Your task to perform on an android device: open app "eBay: The shopping marketplace" Image 0: 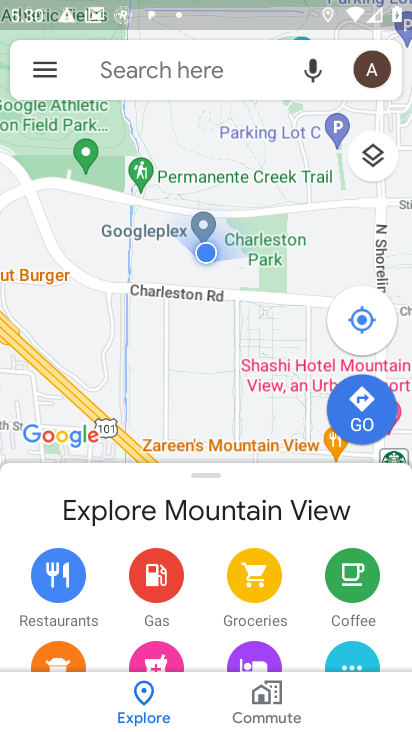
Step 0: press home button
Your task to perform on an android device: open app "eBay: The shopping marketplace" Image 1: 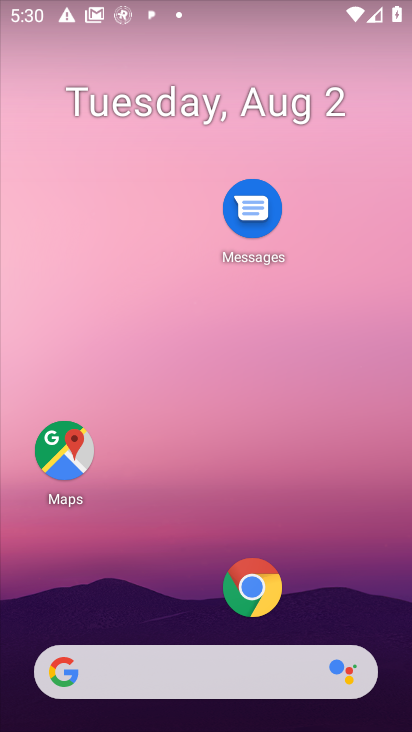
Step 1: drag from (156, 608) to (77, 218)
Your task to perform on an android device: open app "eBay: The shopping marketplace" Image 2: 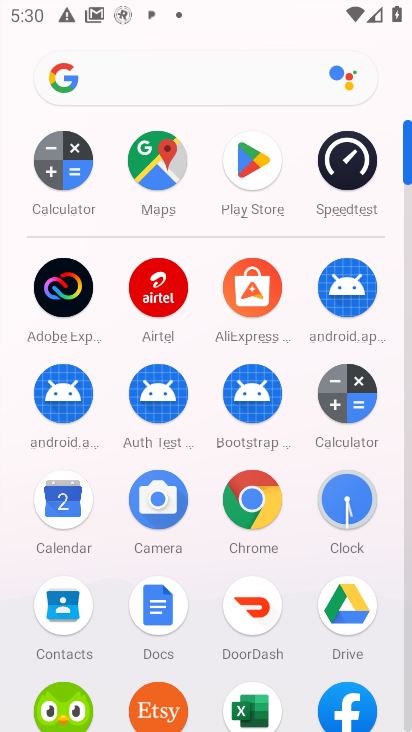
Step 2: click (265, 170)
Your task to perform on an android device: open app "eBay: The shopping marketplace" Image 3: 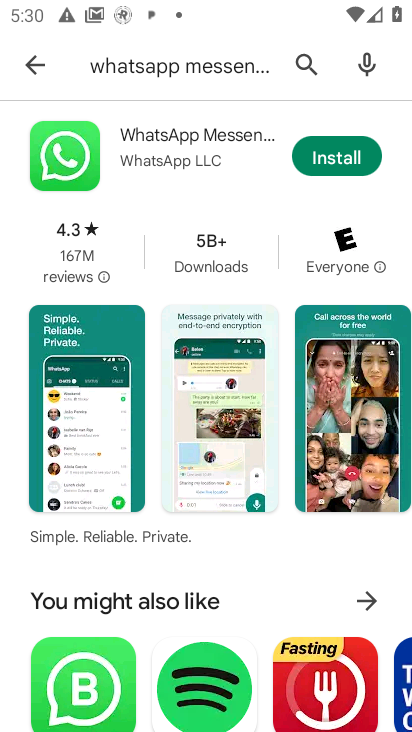
Step 3: click (309, 63)
Your task to perform on an android device: open app "eBay: The shopping marketplace" Image 4: 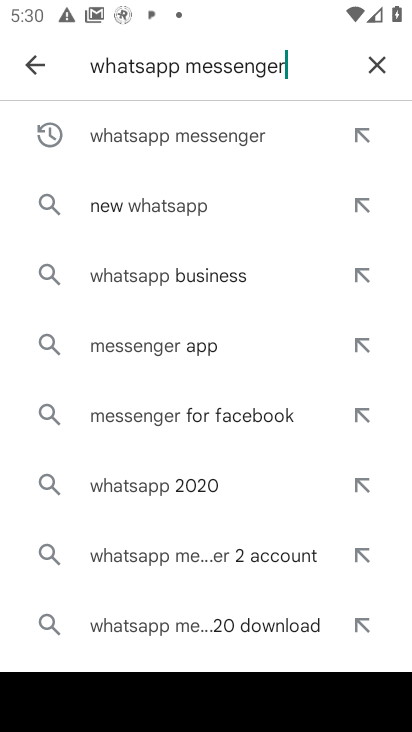
Step 4: click (372, 61)
Your task to perform on an android device: open app "eBay: The shopping marketplace" Image 5: 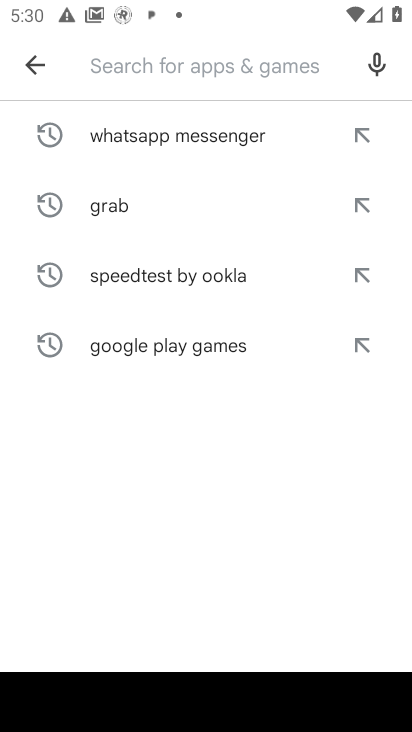
Step 5: type "eBay: The shopping marketplace"
Your task to perform on an android device: open app "eBay: The shopping marketplace" Image 6: 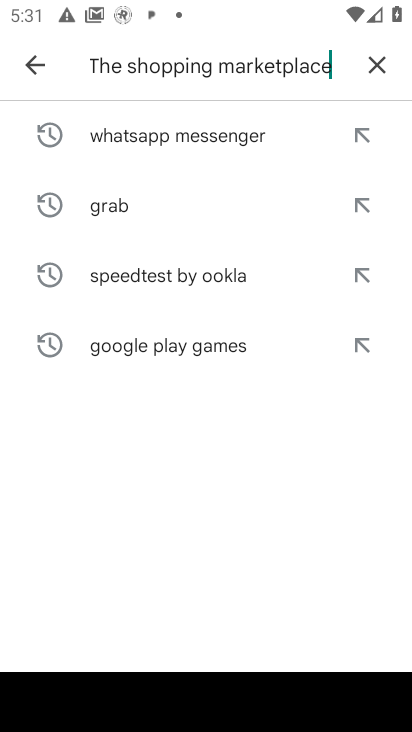
Step 6: type ""
Your task to perform on an android device: open app "eBay: The shopping marketplace" Image 7: 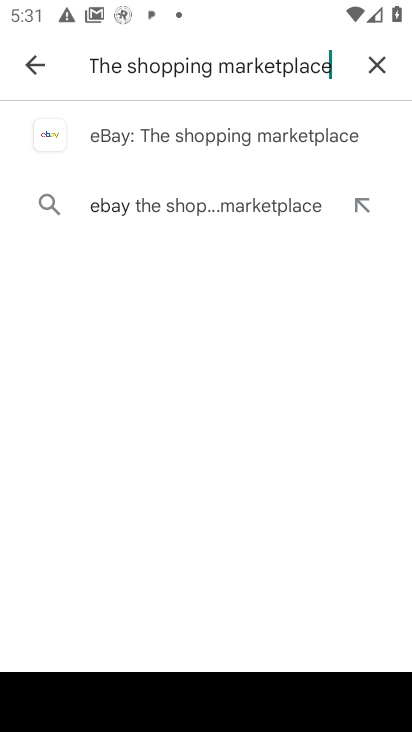
Step 7: click (140, 141)
Your task to perform on an android device: open app "eBay: The shopping marketplace" Image 8: 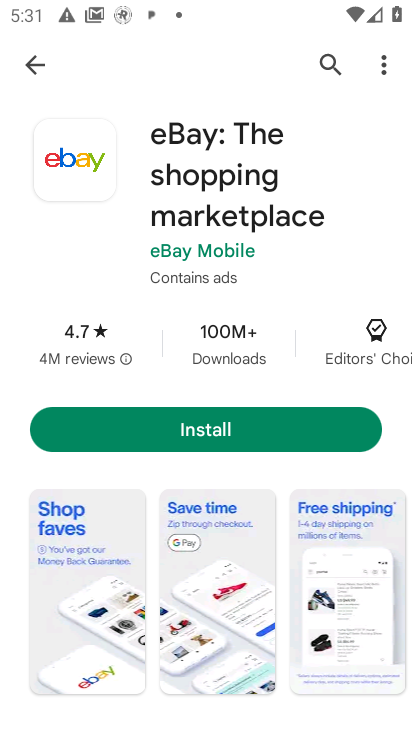
Step 8: task complete